Your task to perform on an android device: Is it going to rain today? Image 0: 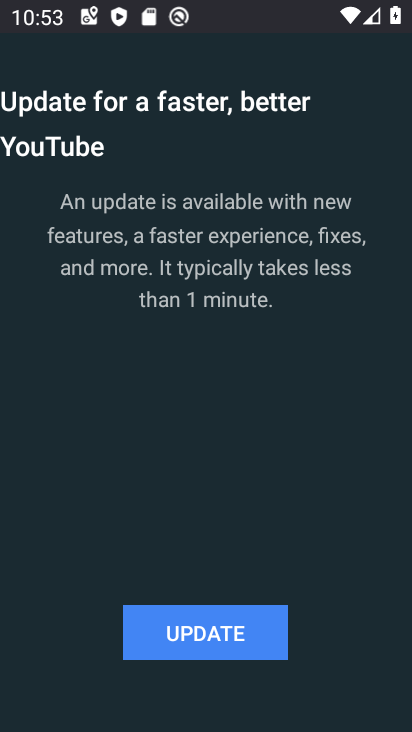
Step 0: press home button
Your task to perform on an android device: Is it going to rain today? Image 1: 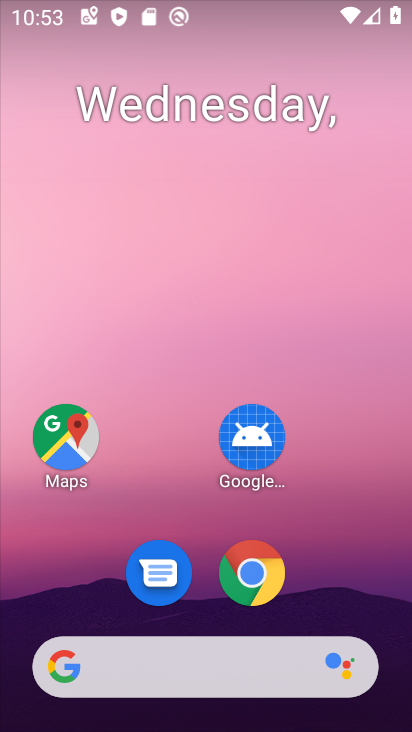
Step 1: drag from (181, 480) to (227, 24)
Your task to perform on an android device: Is it going to rain today? Image 2: 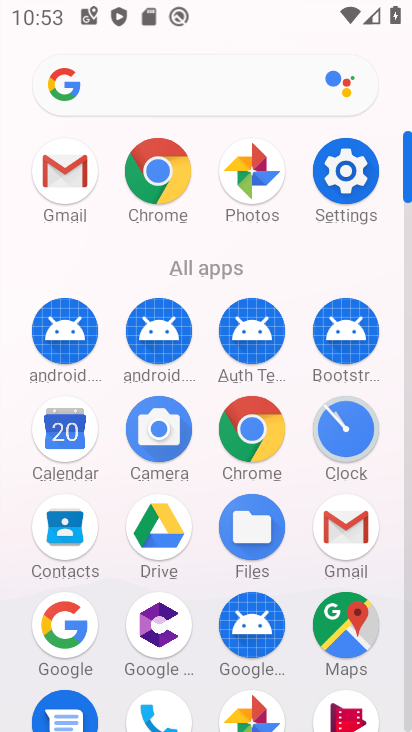
Step 2: click (63, 629)
Your task to perform on an android device: Is it going to rain today? Image 3: 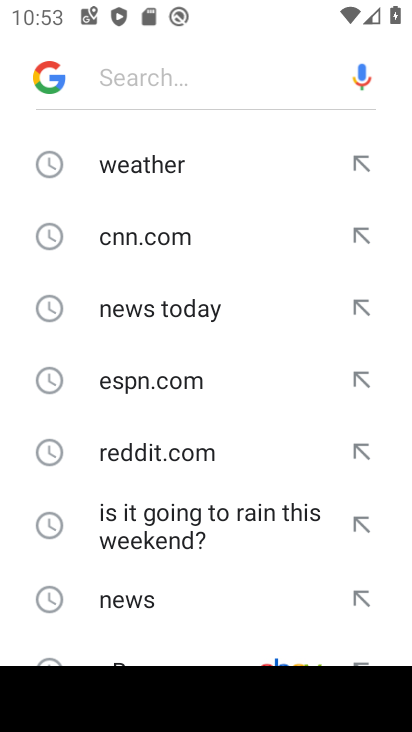
Step 3: drag from (258, 466) to (280, 205)
Your task to perform on an android device: Is it going to rain today? Image 4: 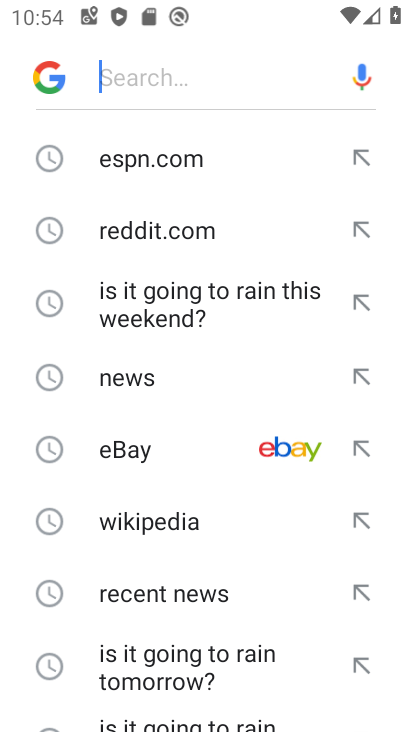
Step 4: drag from (257, 588) to (292, 384)
Your task to perform on an android device: Is it going to rain today? Image 5: 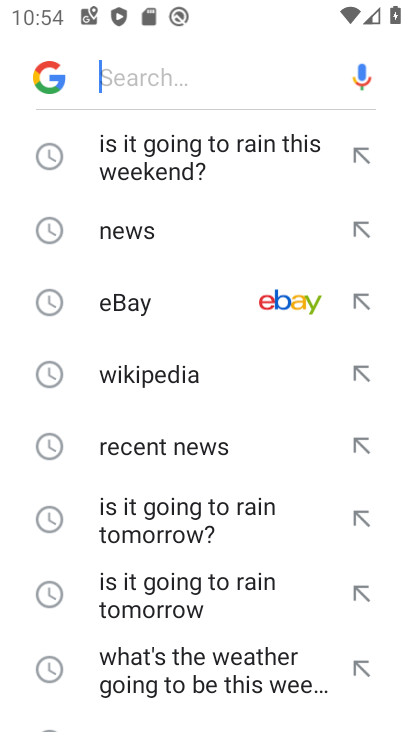
Step 5: drag from (276, 631) to (266, 357)
Your task to perform on an android device: Is it going to rain today? Image 6: 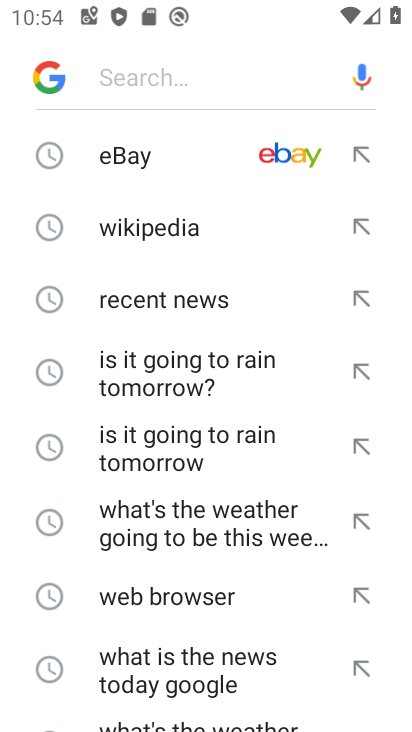
Step 6: drag from (236, 636) to (280, 395)
Your task to perform on an android device: Is it going to rain today? Image 7: 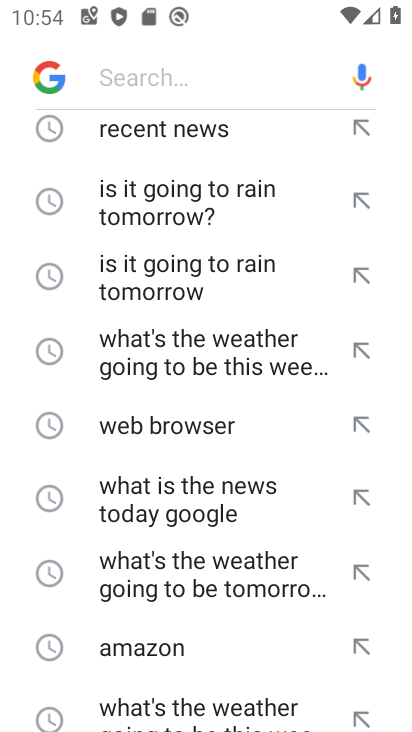
Step 7: drag from (216, 698) to (289, 393)
Your task to perform on an android device: Is it going to rain today? Image 8: 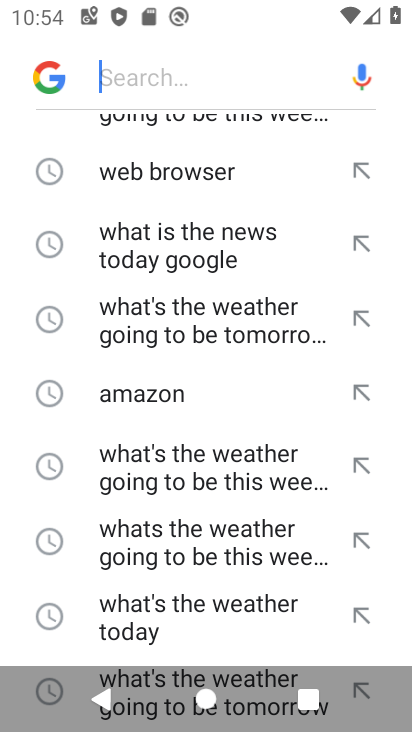
Step 8: drag from (190, 614) to (215, 390)
Your task to perform on an android device: Is it going to rain today? Image 9: 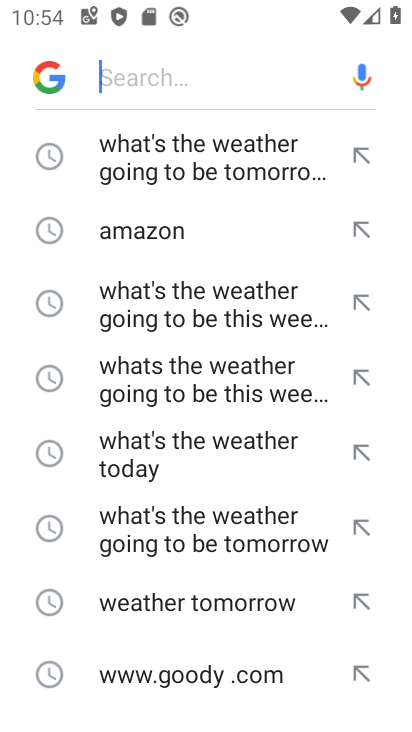
Step 9: drag from (178, 629) to (227, 333)
Your task to perform on an android device: Is it going to rain today? Image 10: 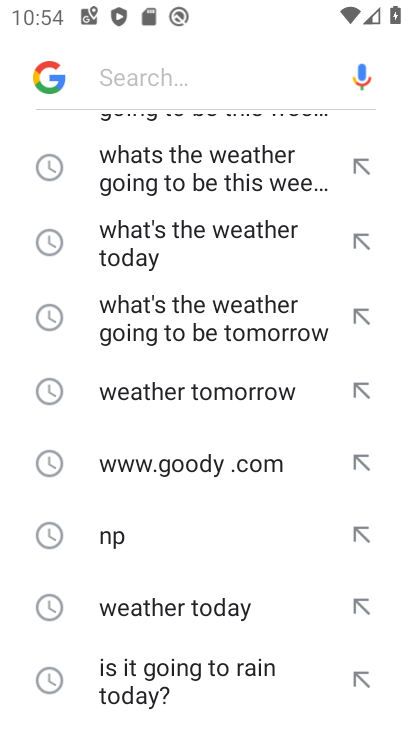
Step 10: click (195, 674)
Your task to perform on an android device: Is it going to rain today? Image 11: 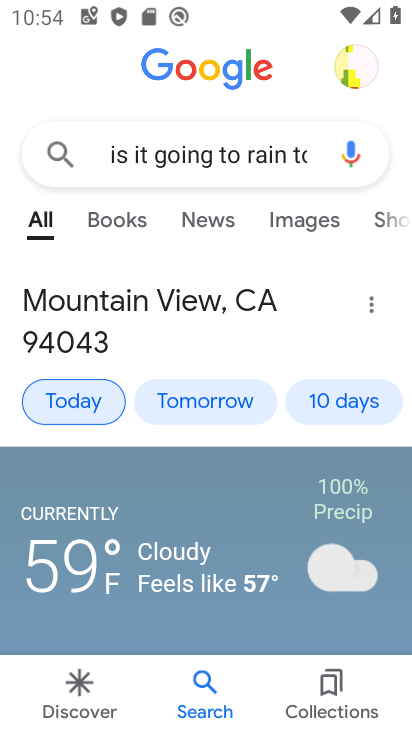
Step 11: task complete